Your task to perform on an android device: Is it going to rain today? Image 0: 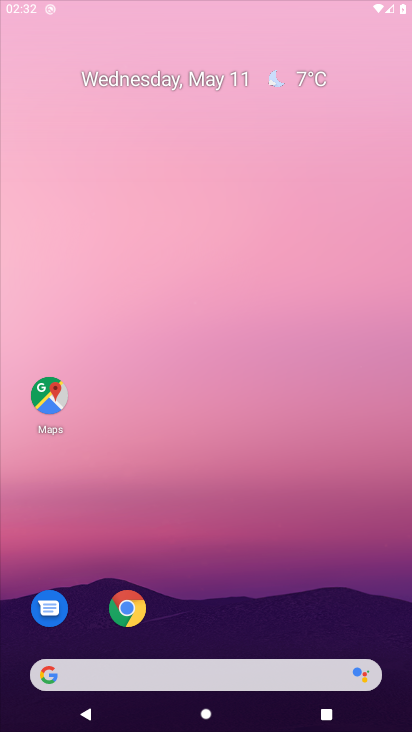
Step 0: press home button
Your task to perform on an android device: Is it going to rain today? Image 1: 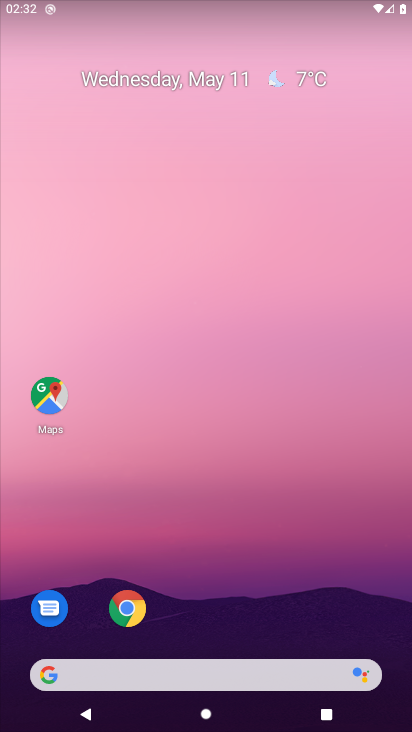
Step 1: click (323, 77)
Your task to perform on an android device: Is it going to rain today? Image 2: 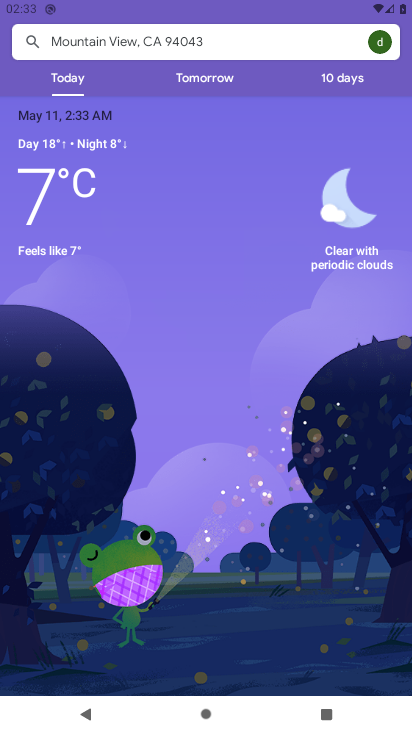
Step 2: drag from (201, 577) to (196, 69)
Your task to perform on an android device: Is it going to rain today? Image 3: 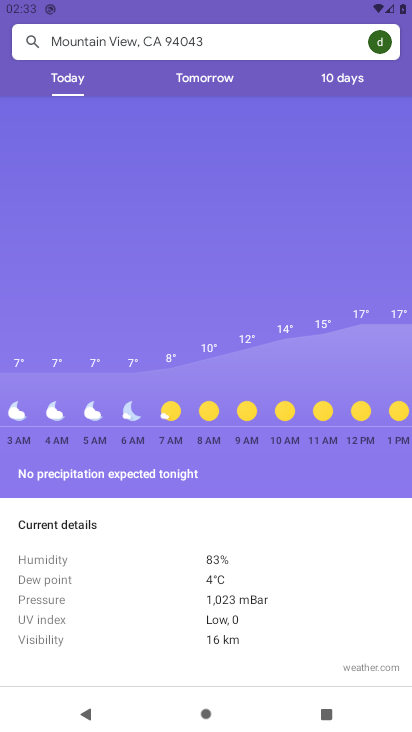
Step 3: drag from (362, 417) to (21, 401)
Your task to perform on an android device: Is it going to rain today? Image 4: 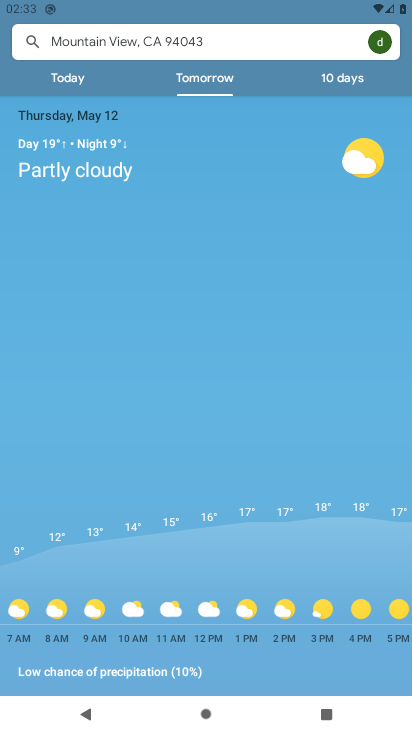
Step 4: click (70, 73)
Your task to perform on an android device: Is it going to rain today? Image 5: 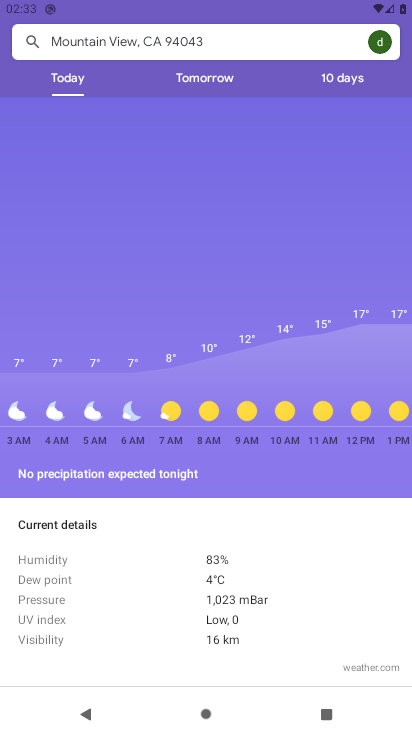
Step 5: task complete